Your task to perform on an android device: Open settings on Google Maps Image 0: 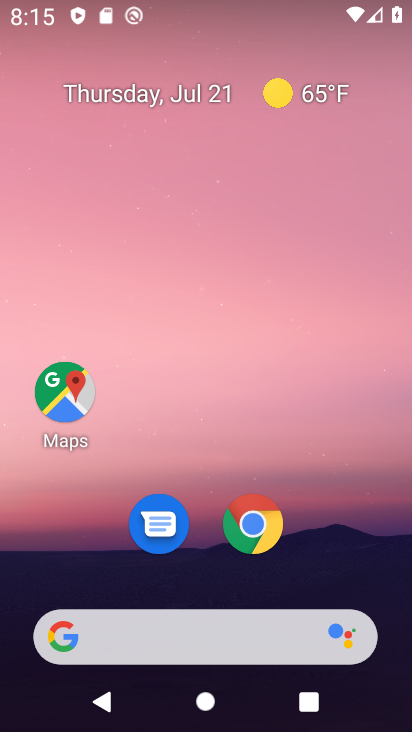
Step 0: drag from (217, 620) to (238, 128)
Your task to perform on an android device: Open settings on Google Maps Image 1: 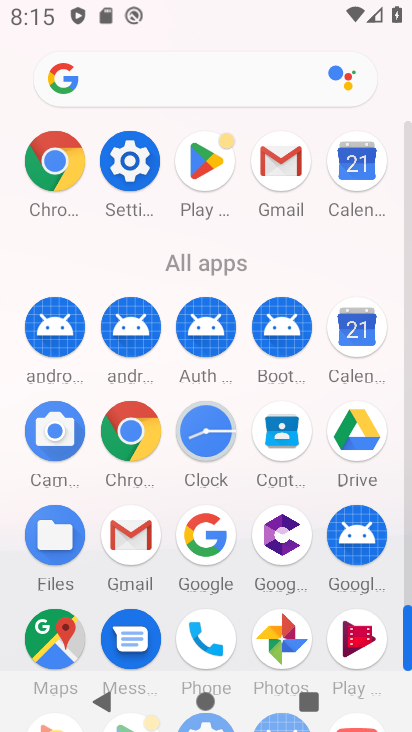
Step 1: click (52, 636)
Your task to perform on an android device: Open settings on Google Maps Image 2: 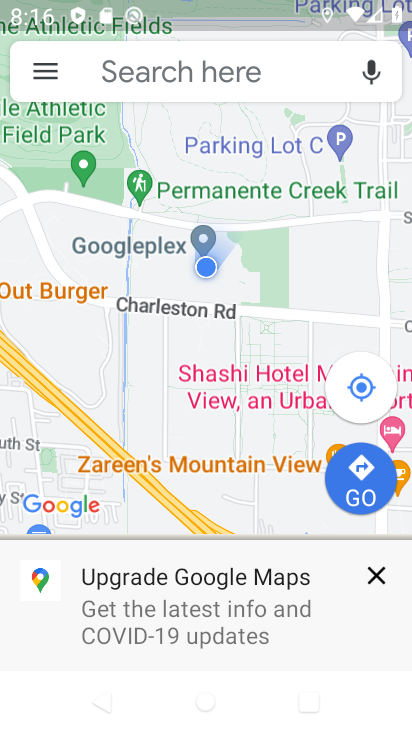
Step 2: click (49, 67)
Your task to perform on an android device: Open settings on Google Maps Image 3: 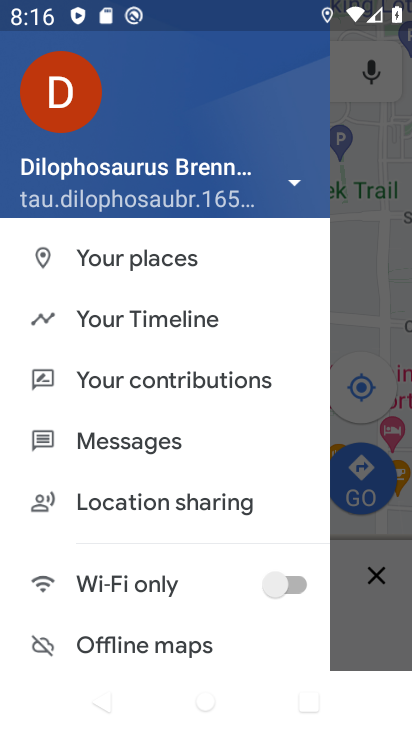
Step 3: drag from (123, 579) to (188, 219)
Your task to perform on an android device: Open settings on Google Maps Image 4: 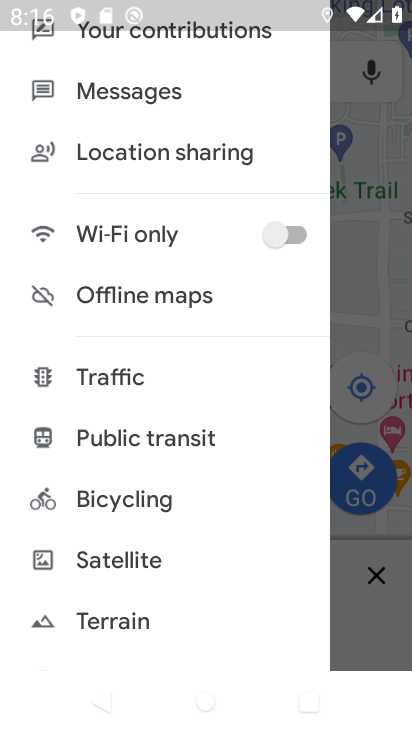
Step 4: drag from (142, 559) to (143, 176)
Your task to perform on an android device: Open settings on Google Maps Image 5: 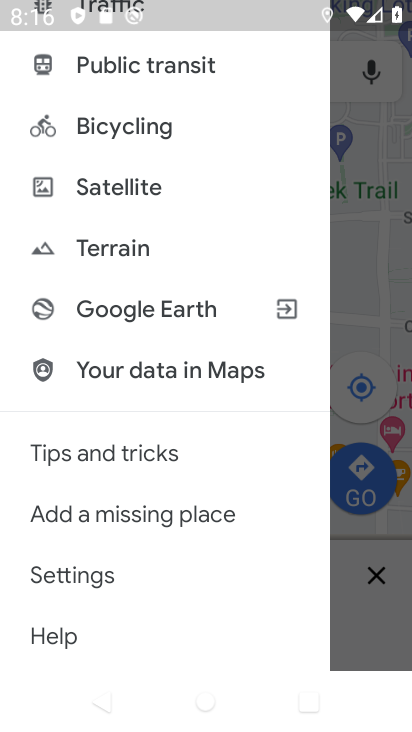
Step 5: click (68, 577)
Your task to perform on an android device: Open settings on Google Maps Image 6: 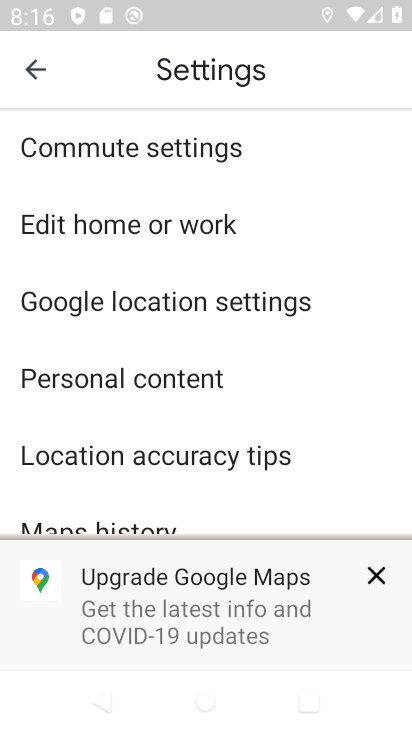
Step 6: task complete